Your task to perform on an android device: Search for bose soundlink mini on newegg, select the first entry, add it to the cart, then select checkout. Image 0: 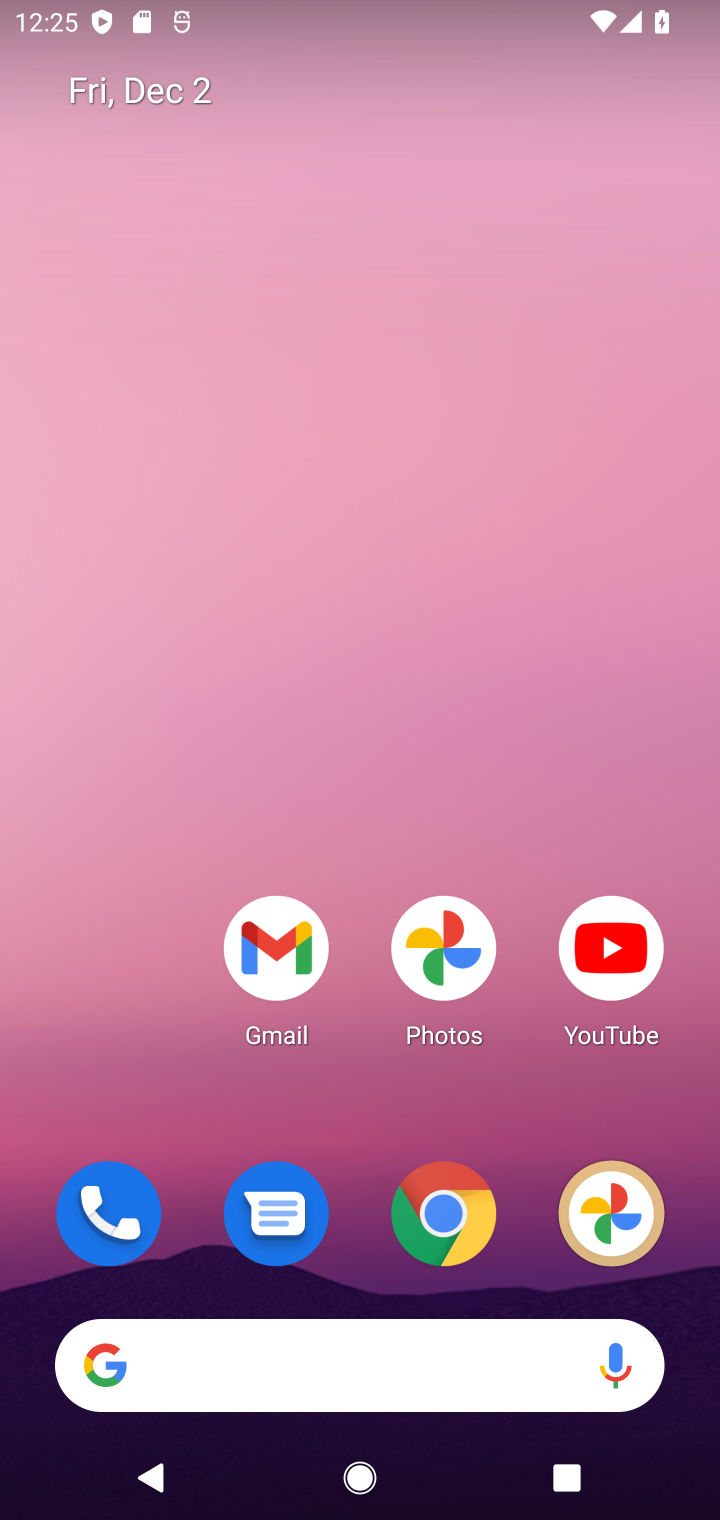
Step 0: drag from (347, 1369) to (347, 364)
Your task to perform on an android device: Search for bose soundlink mini on newegg, select the first entry, add it to the cart, then select checkout. Image 1: 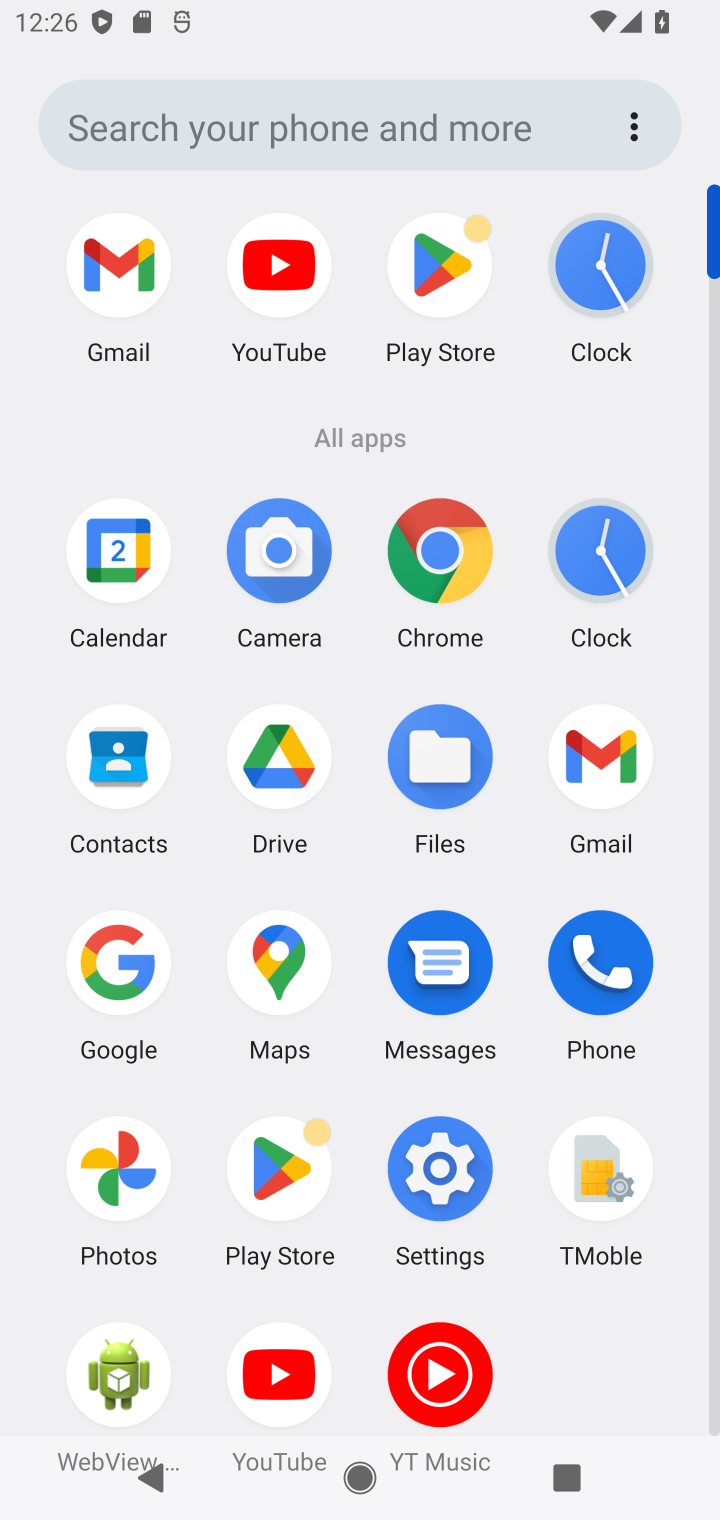
Step 1: click (114, 953)
Your task to perform on an android device: Search for bose soundlink mini on newegg, select the first entry, add it to the cart, then select checkout. Image 2: 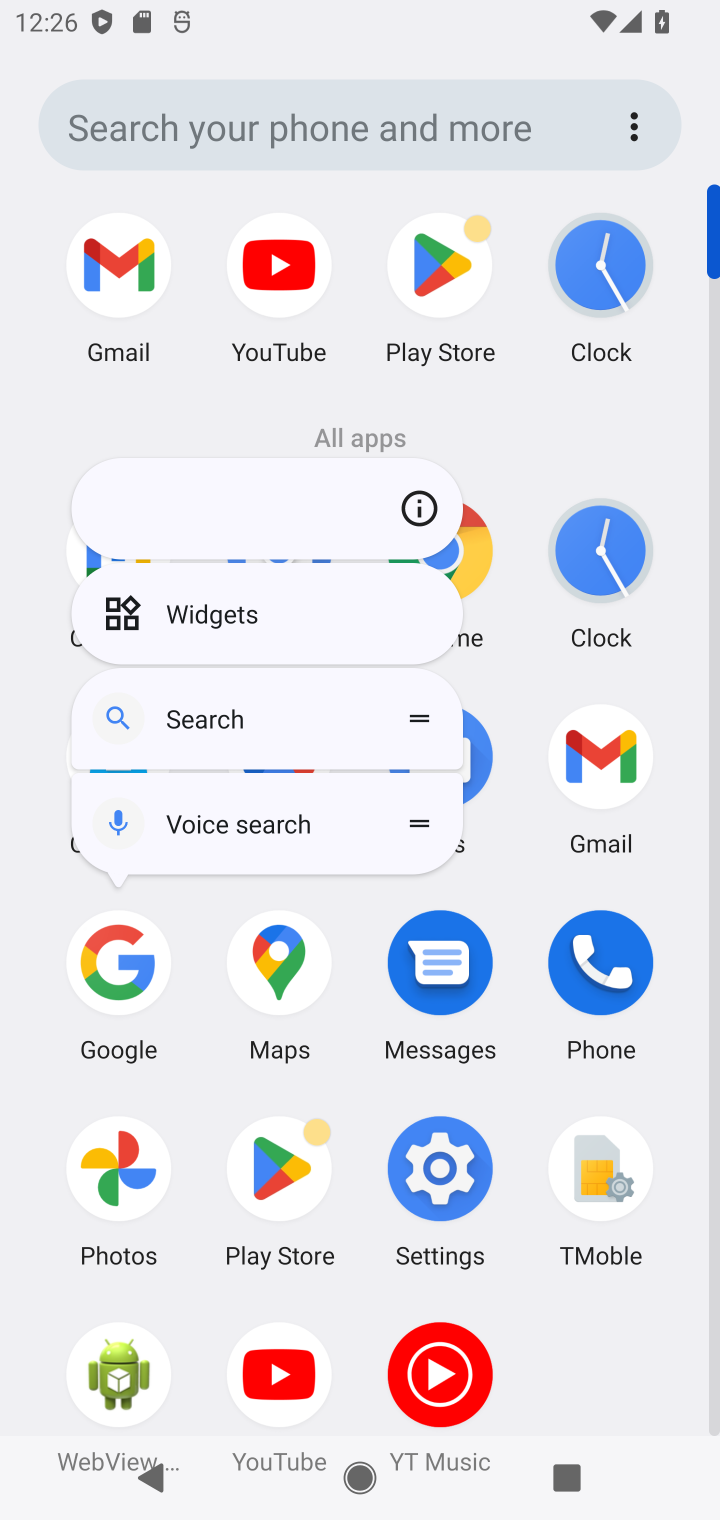
Step 2: click (116, 949)
Your task to perform on an android device: Search for bose soundlink mini on newegg, select the first entry, add it to the cart, then select checkout. Image 3: 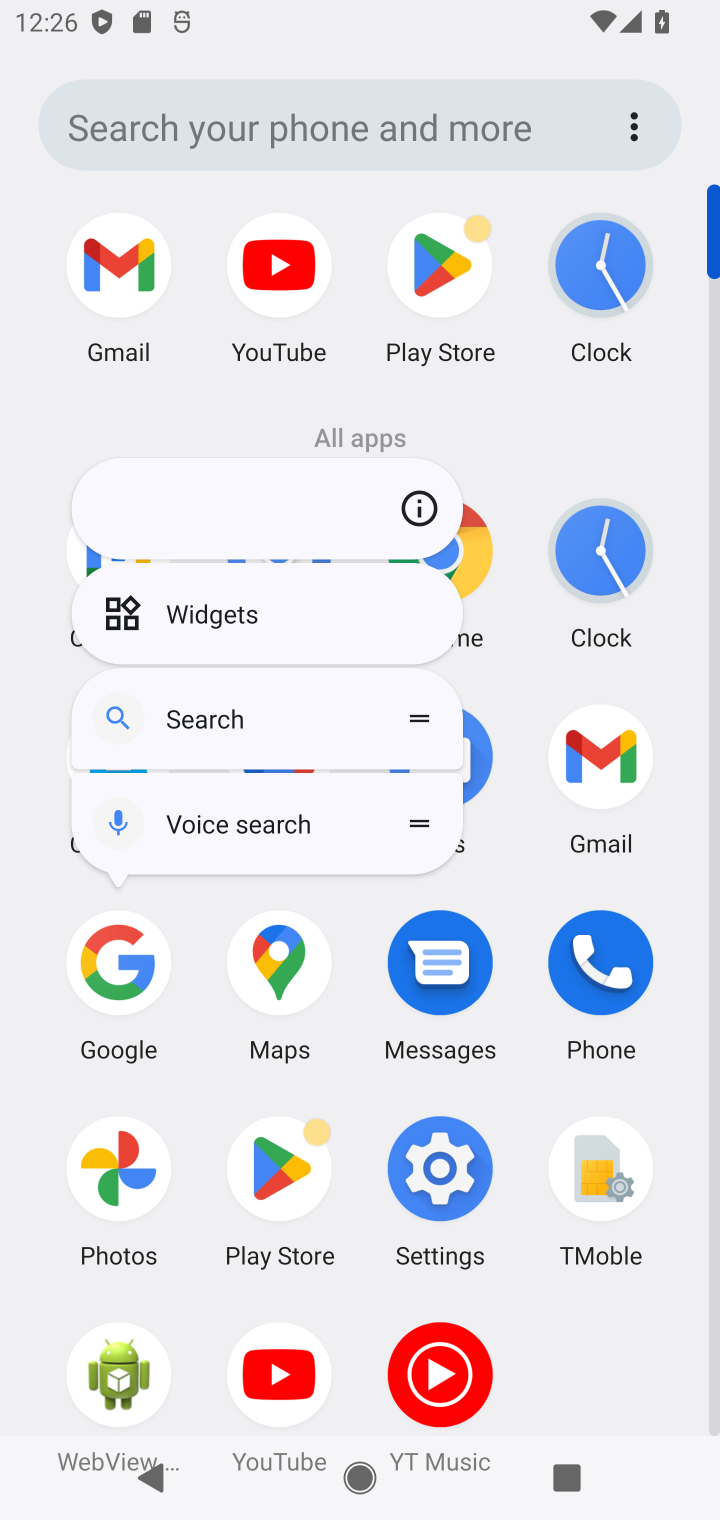
Step 3: click (95, 980)
Your task to perform on an android device: Search for bose soundlink mini on newegg, select the first entry, add it to the cart, then select checkout. Image 4: 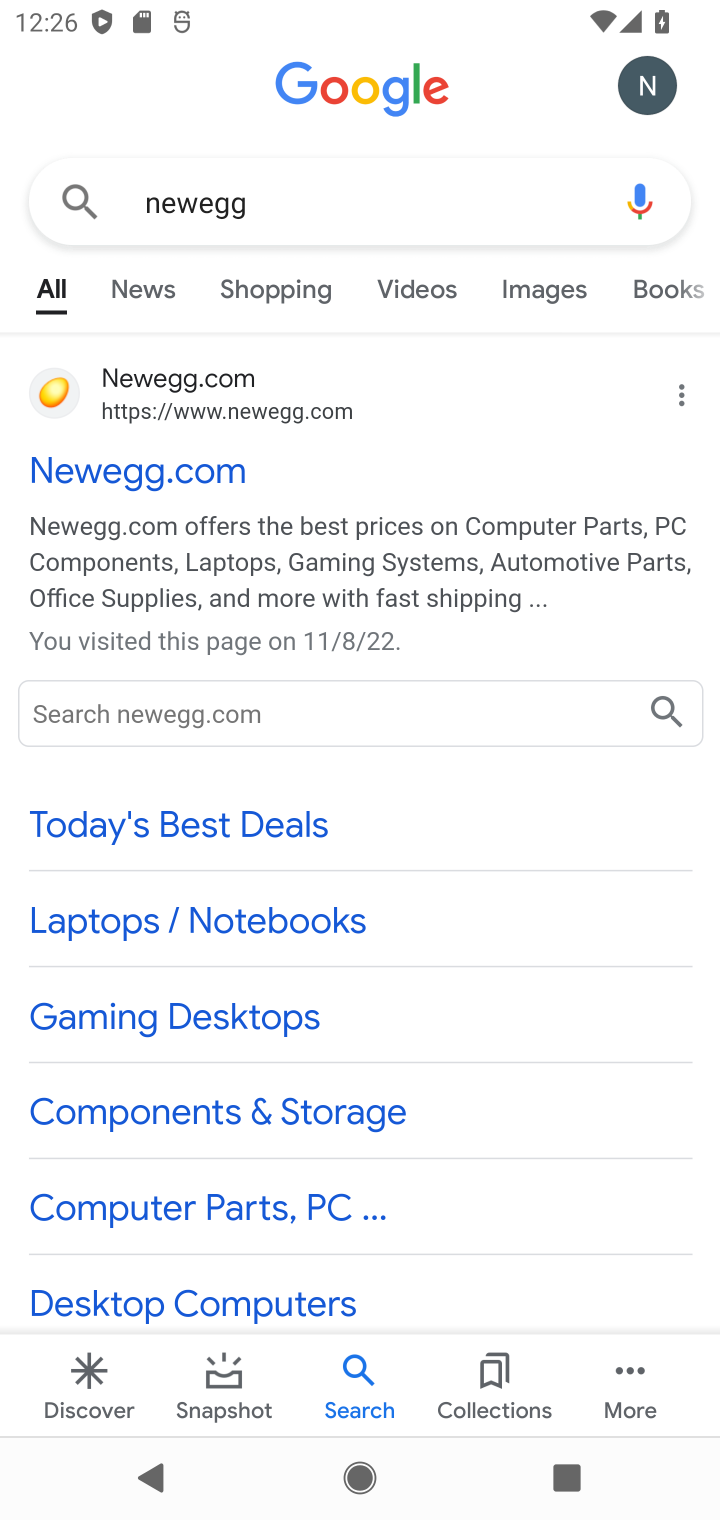
Step 4: click (232, 206)
Your task to perform on an android device: Search for bose soundlink mini on newegg, select the first entry, add it to the cart, then select checkout. Image 5: 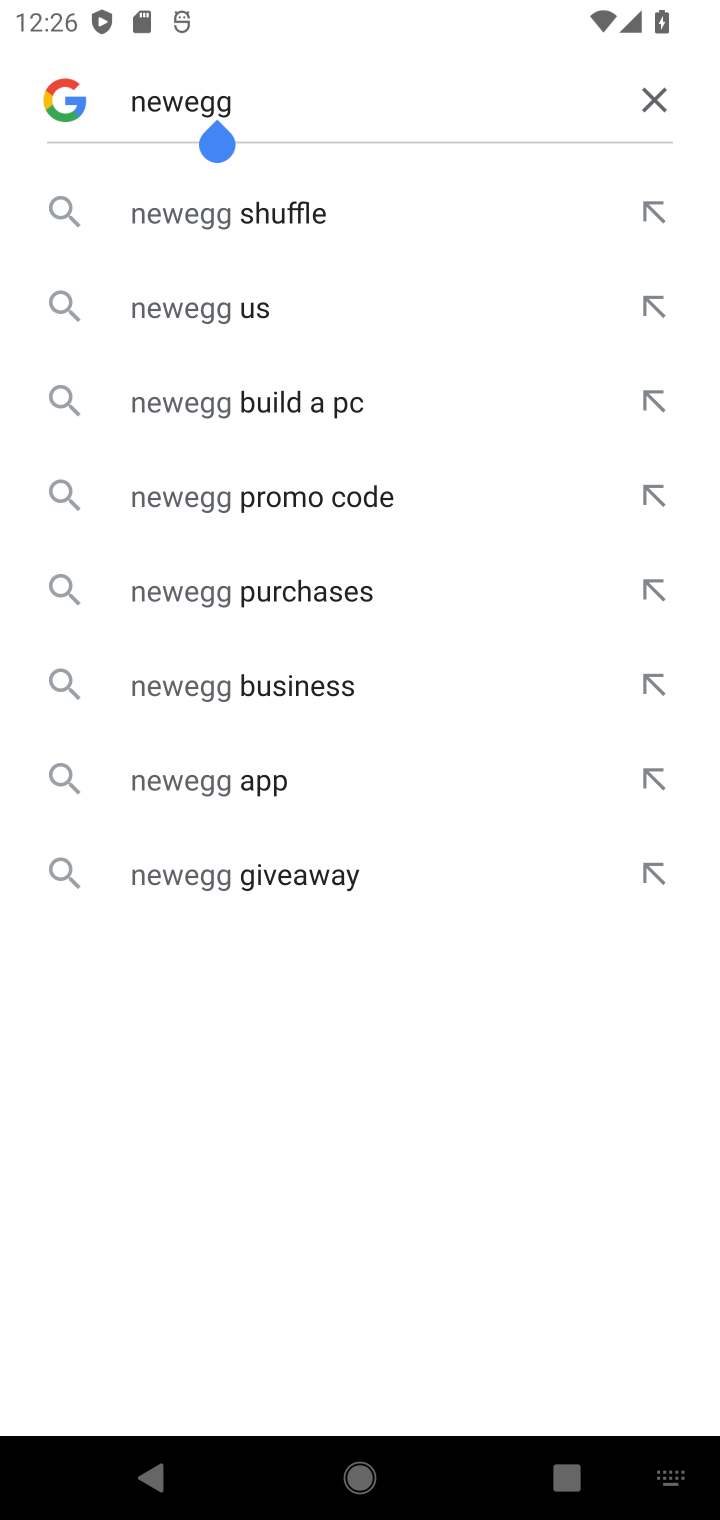
Step 5: click (664, 102)
Your task to perform on an android device: Search for bose soundlink mini on newegg, select the first entry, add it to the cart, then select checkout. Image 6: 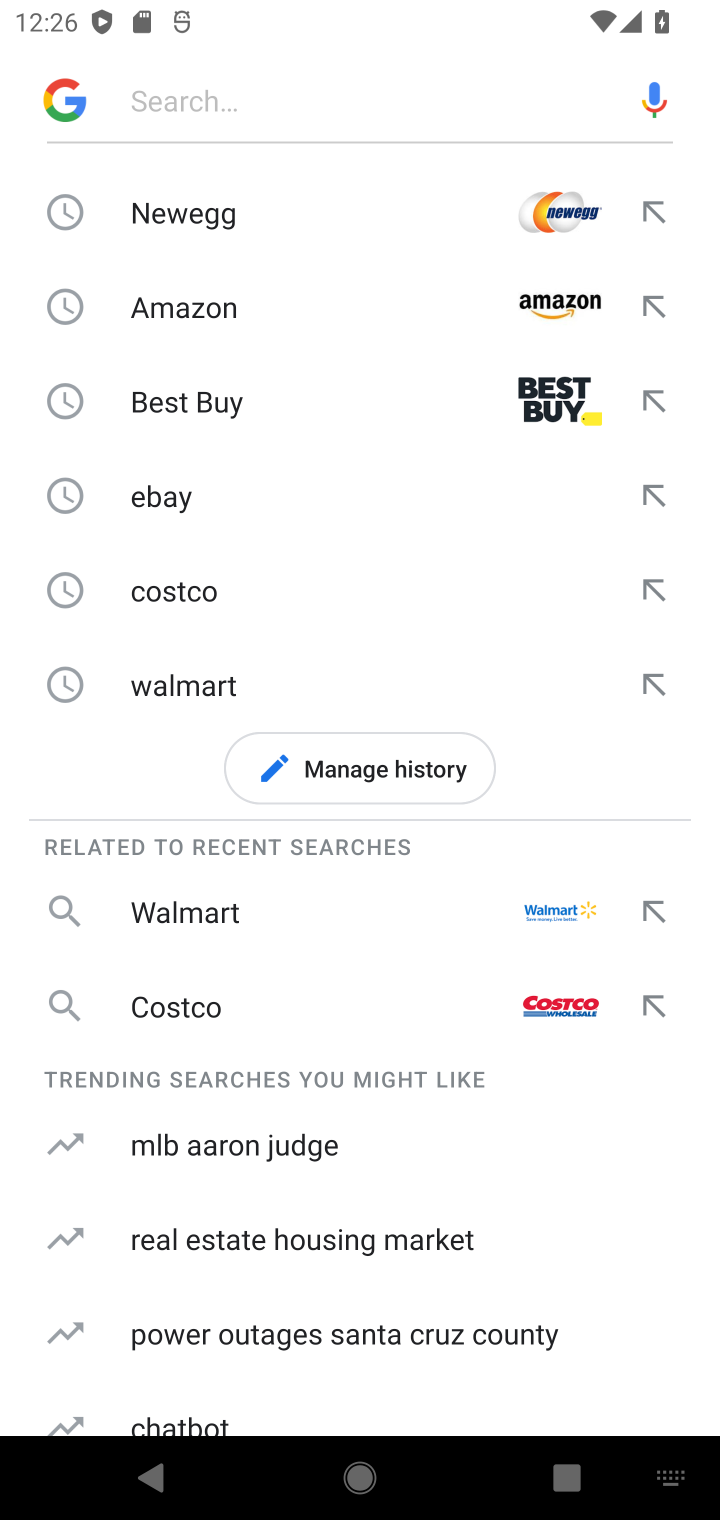
Step 6: click (190, 225)
Your task to perform on an android device: Search for bose soundlink mini on newegg, select the first entry, add it to the cart, then select checkout. Image 7: 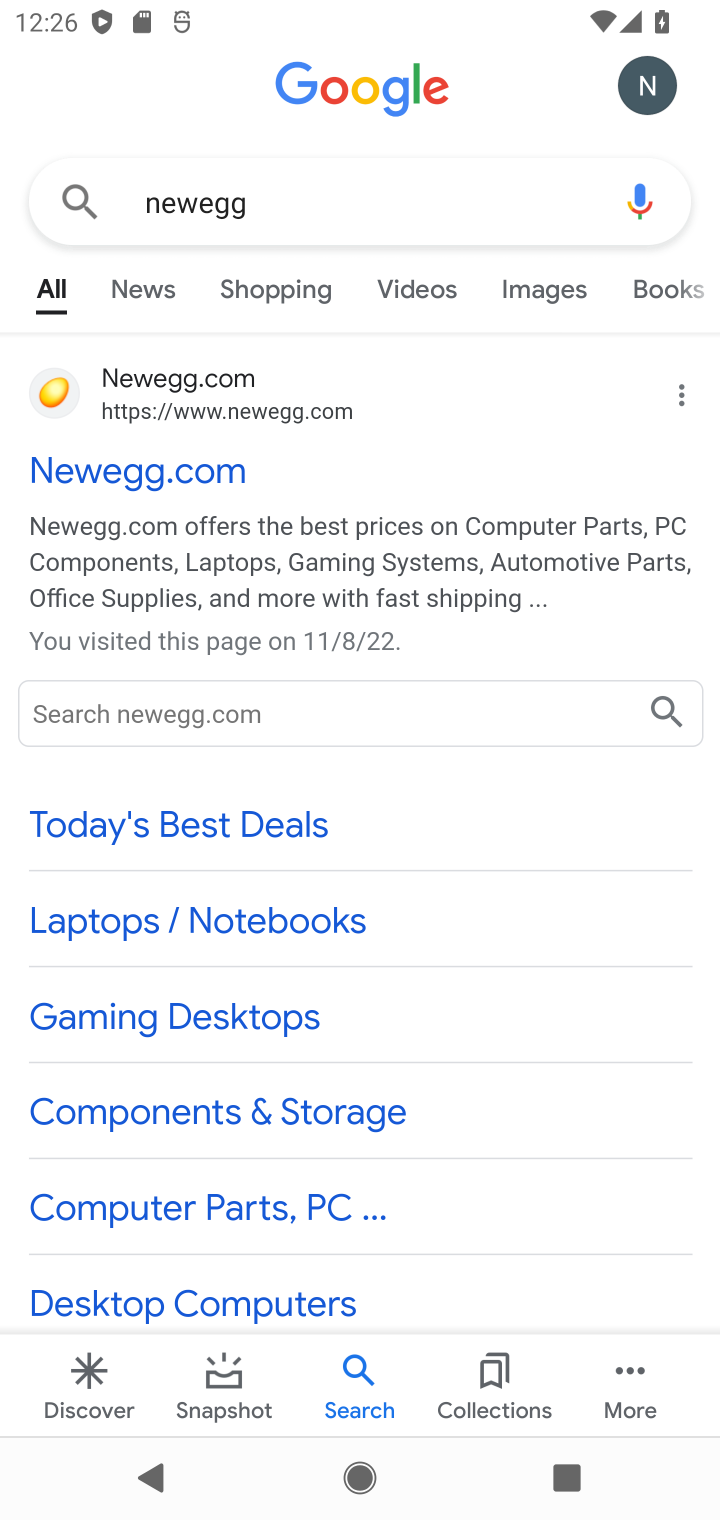
Step 7: click (91, 463)
Your task to perform on an android device: Search for bose soundlink mini on newegg, select the first entry, add it to the cart, then select checkout. Image 8: 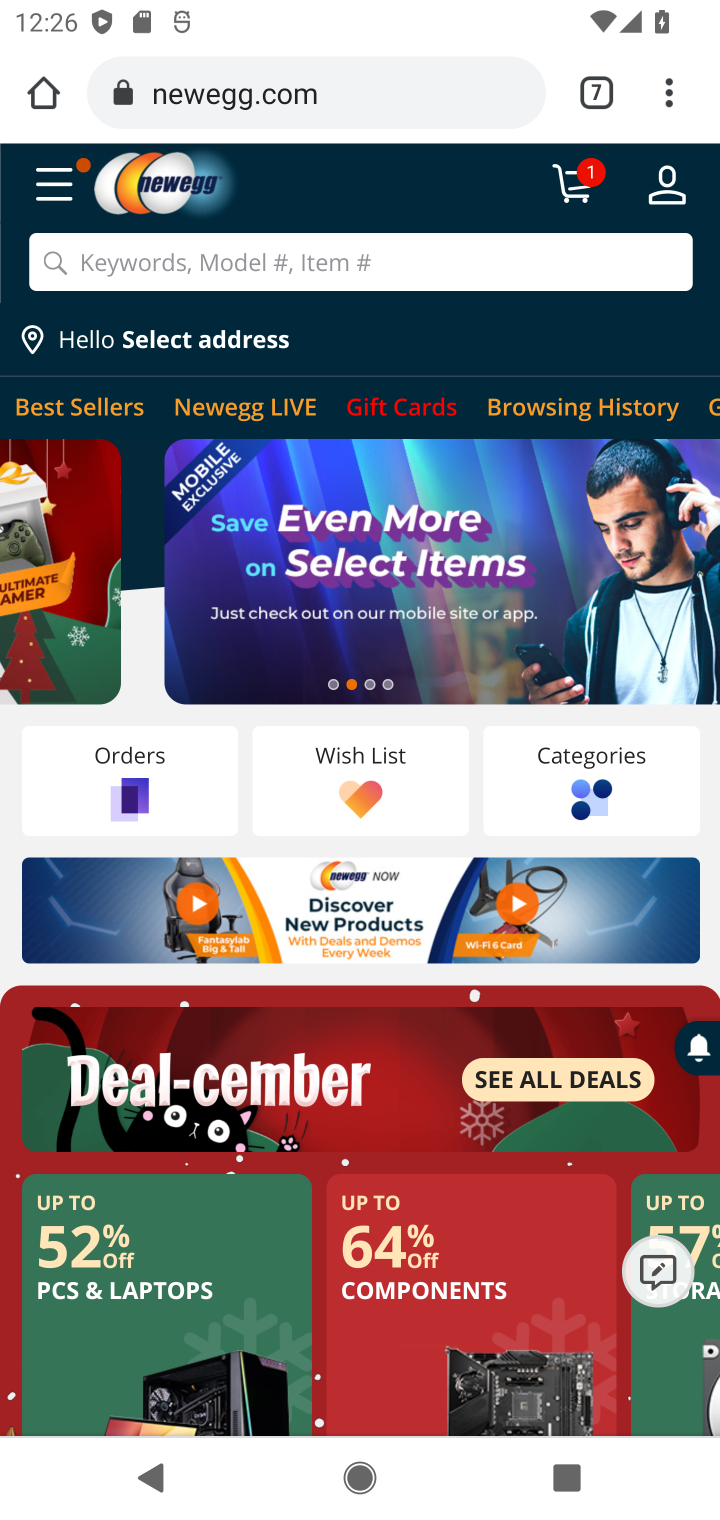
Step 8: click (241, 267)
Your task to perform on an android device: Search for bose soundlink mini on newegg, select the first entry, add it to the cart, then select checkout. Image 9: 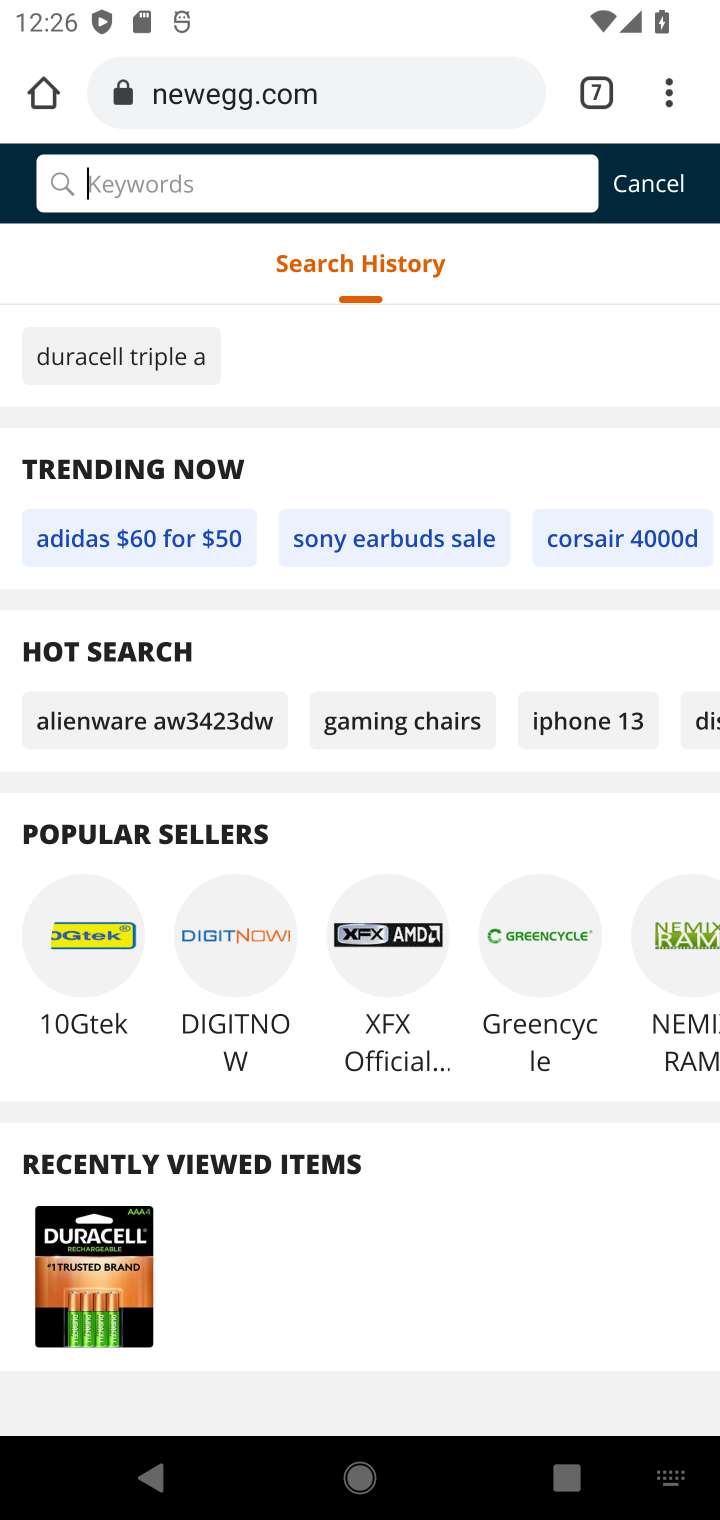
Step 9: type "bose soundlink mini "
Your task to perform on an android device: Search for bose soundlink mini on newegg, select the first entry, add it to the cart, then select checkout. Image 10: 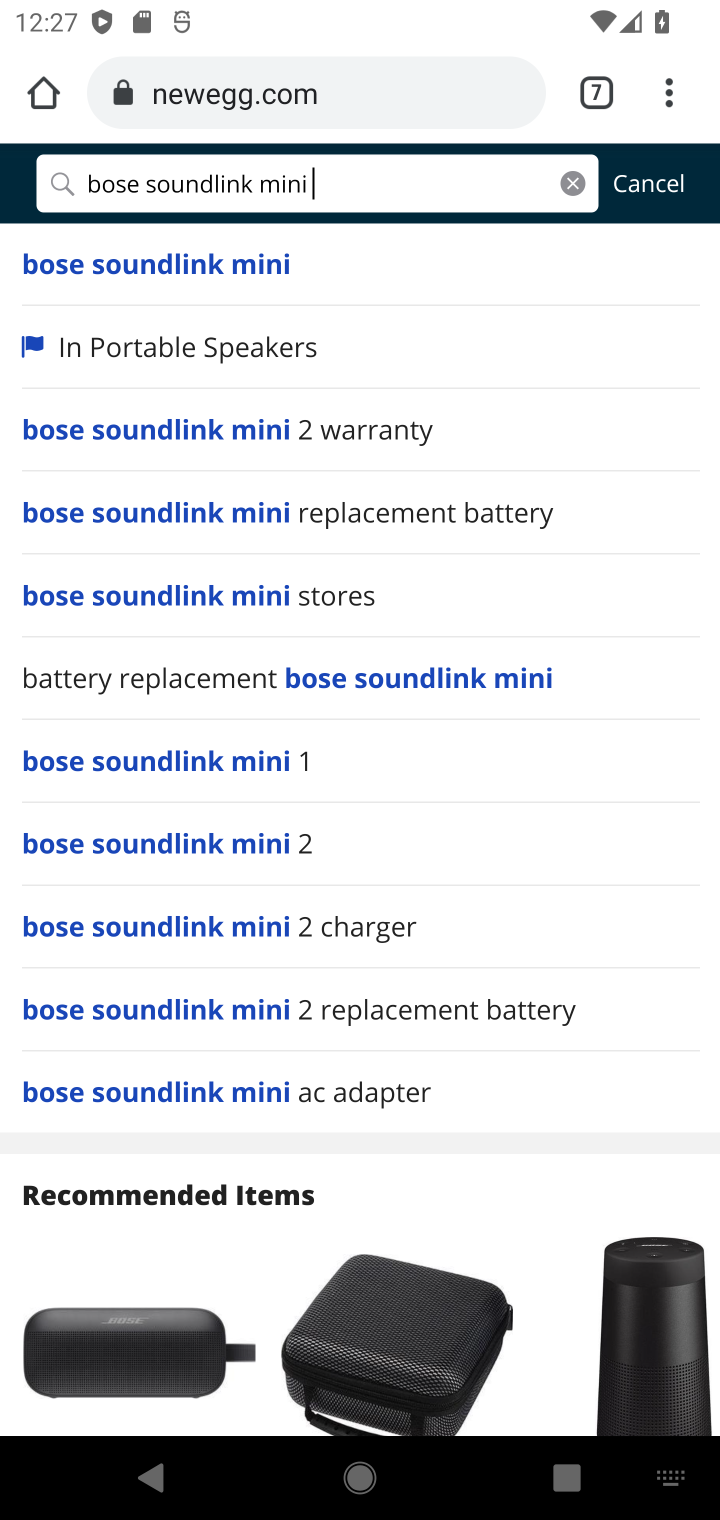
Step 10: click (123, 255)
Your task to perform on an android device: Search for bose soundlink mini on newegg, select the first entry, add it to the cart, then select checkout. Image 11: 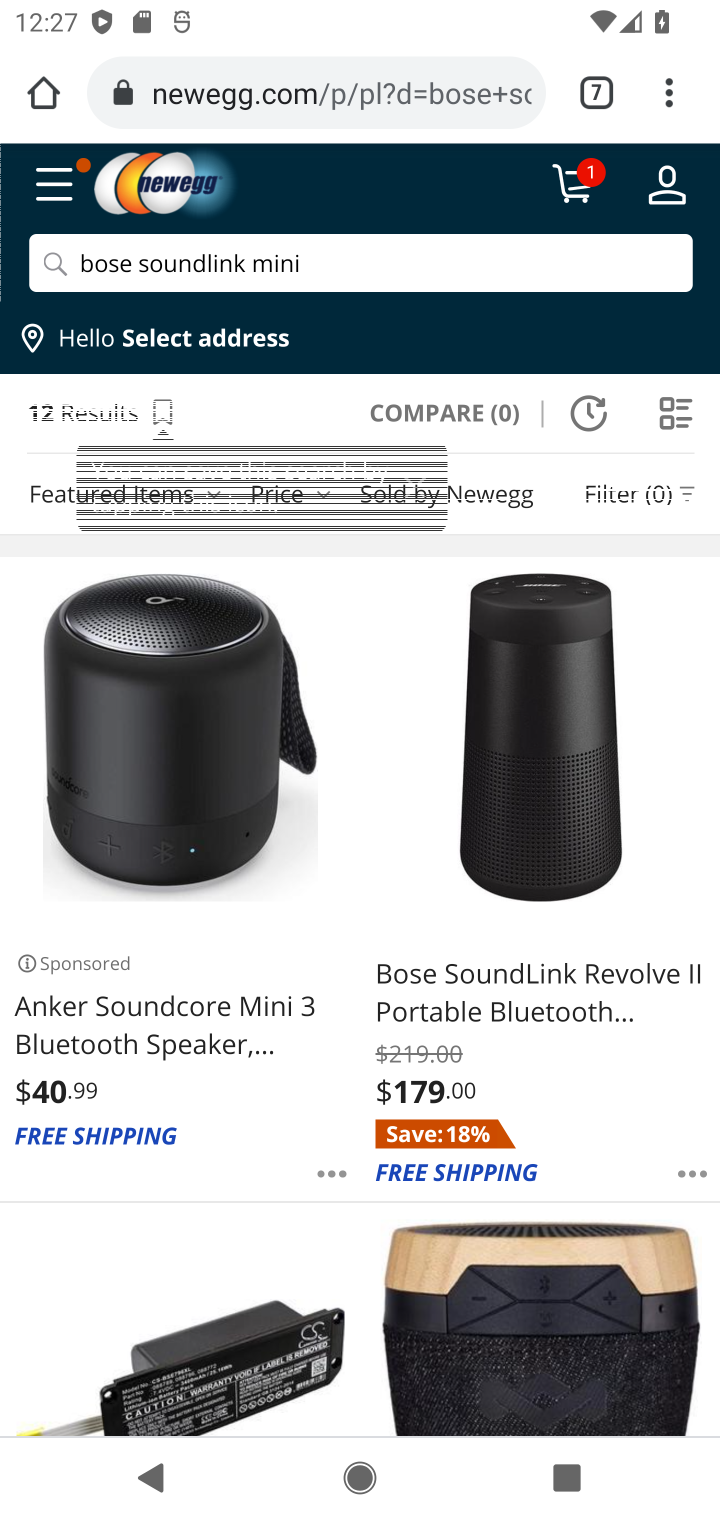
Step 11: click (130, 1038)
Your task to perform on an android device: Search for bose soundlink mini on newegg, select the first entry, add it to the cart, then select checkout. Image 12: 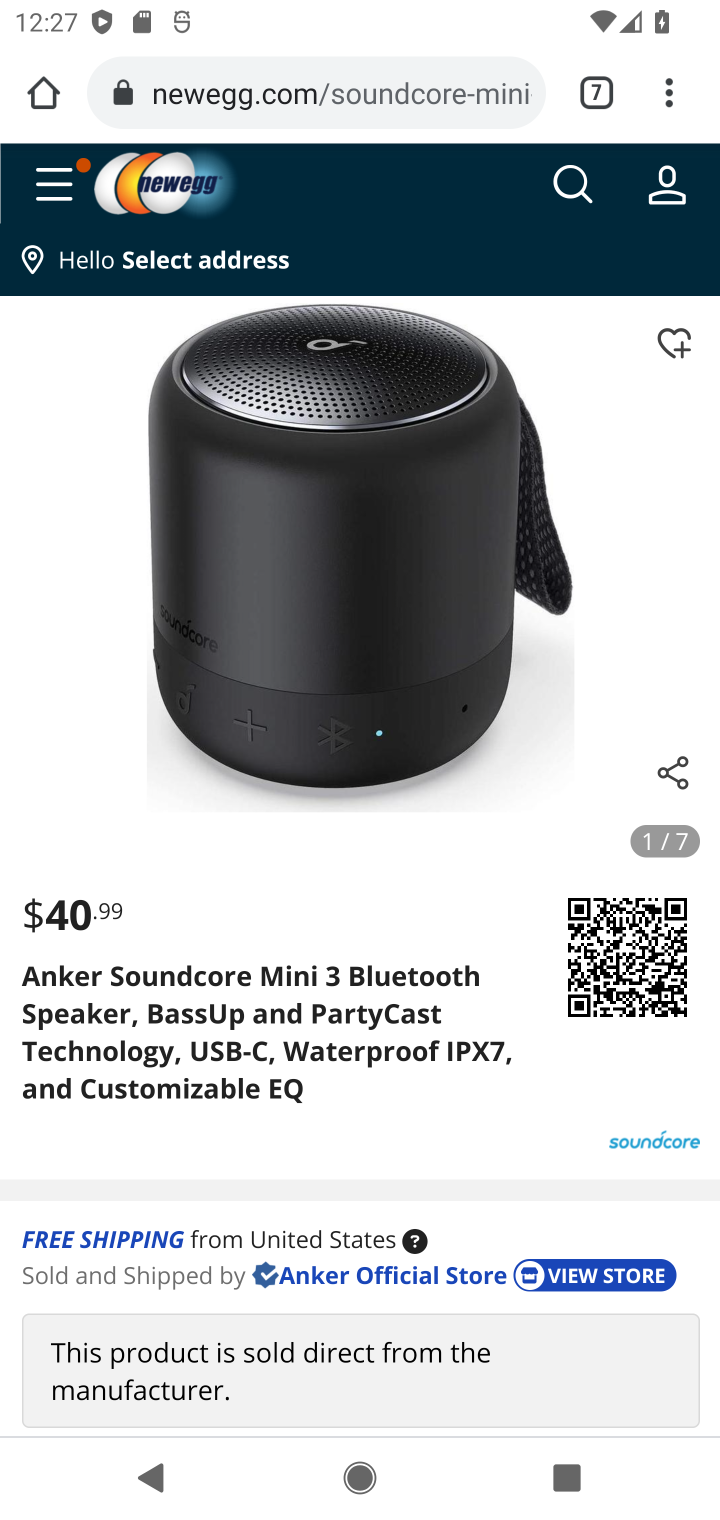
Step 12: drag from (287, 1334) to (311, 644)
Your task to perform on an android device: Search for bose soundlink mini on newegg, select the first entry, add it to the cart, then select checkout. Image 13: 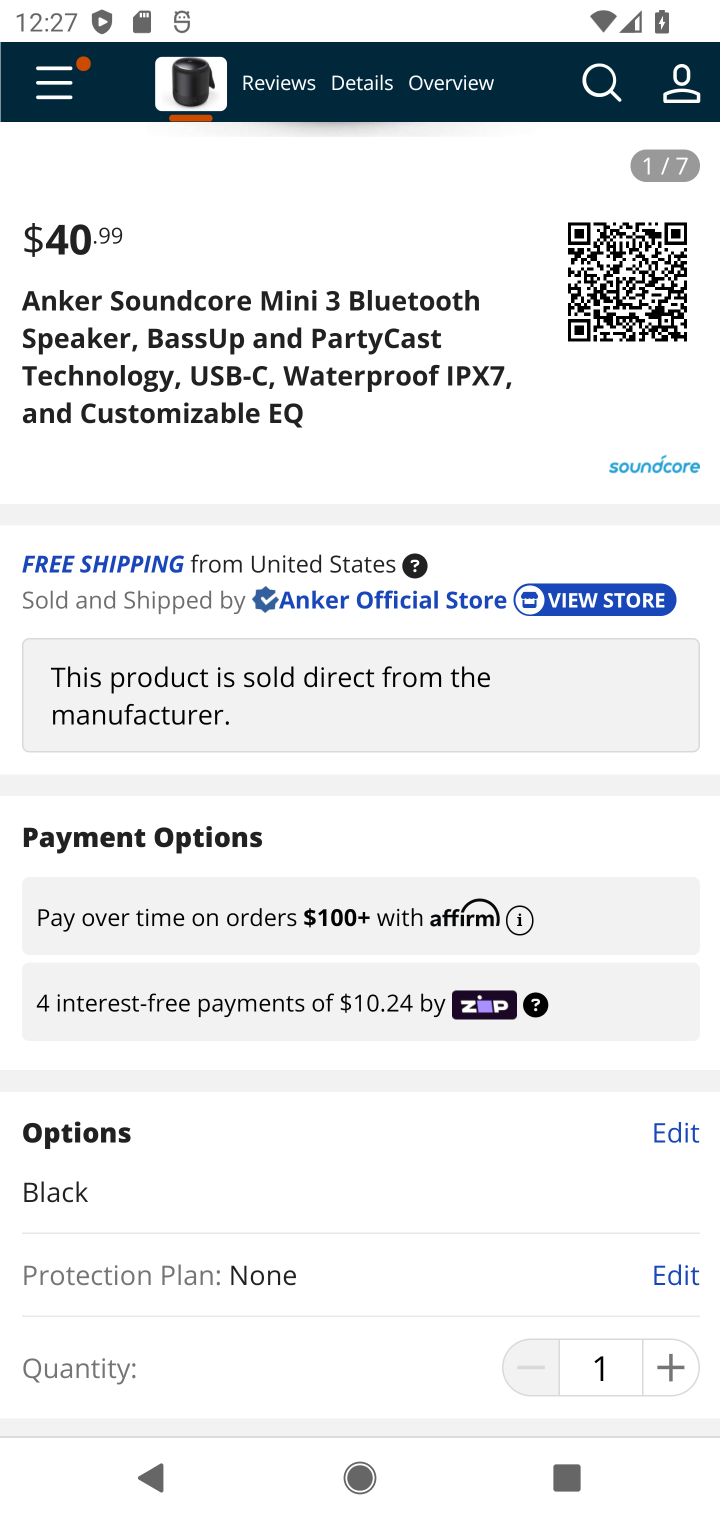
Step 13: click (302, 1395)
Your task to perform on an android device: Search for bose soundlink mini on newegg, select the first entry, add it to the cart, then select checkout. Image 14: 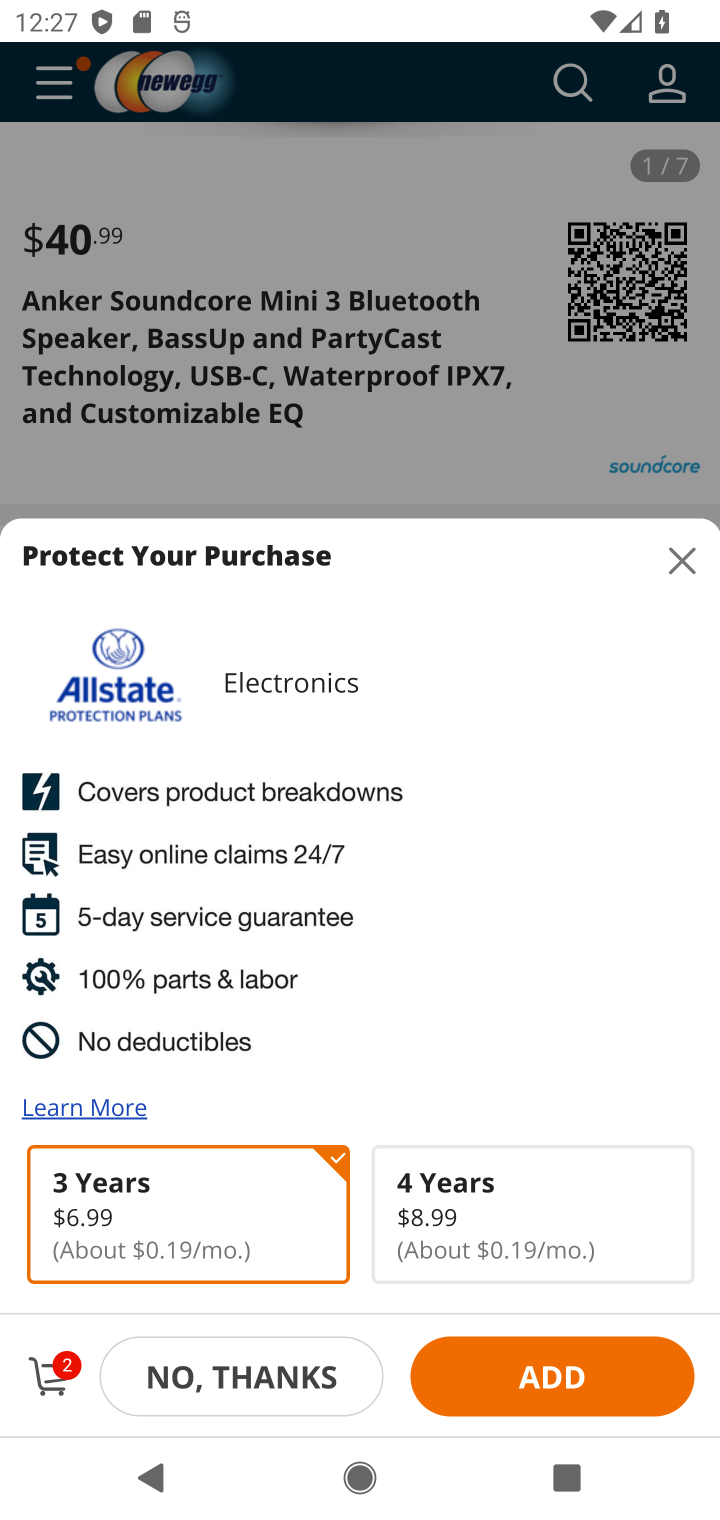
Step 14: click (680, 564)
Your task to perform on an android device: Search for bose soundlink mini on newegg, select the first entry, add it to the cart, then select checkout. Image 15: 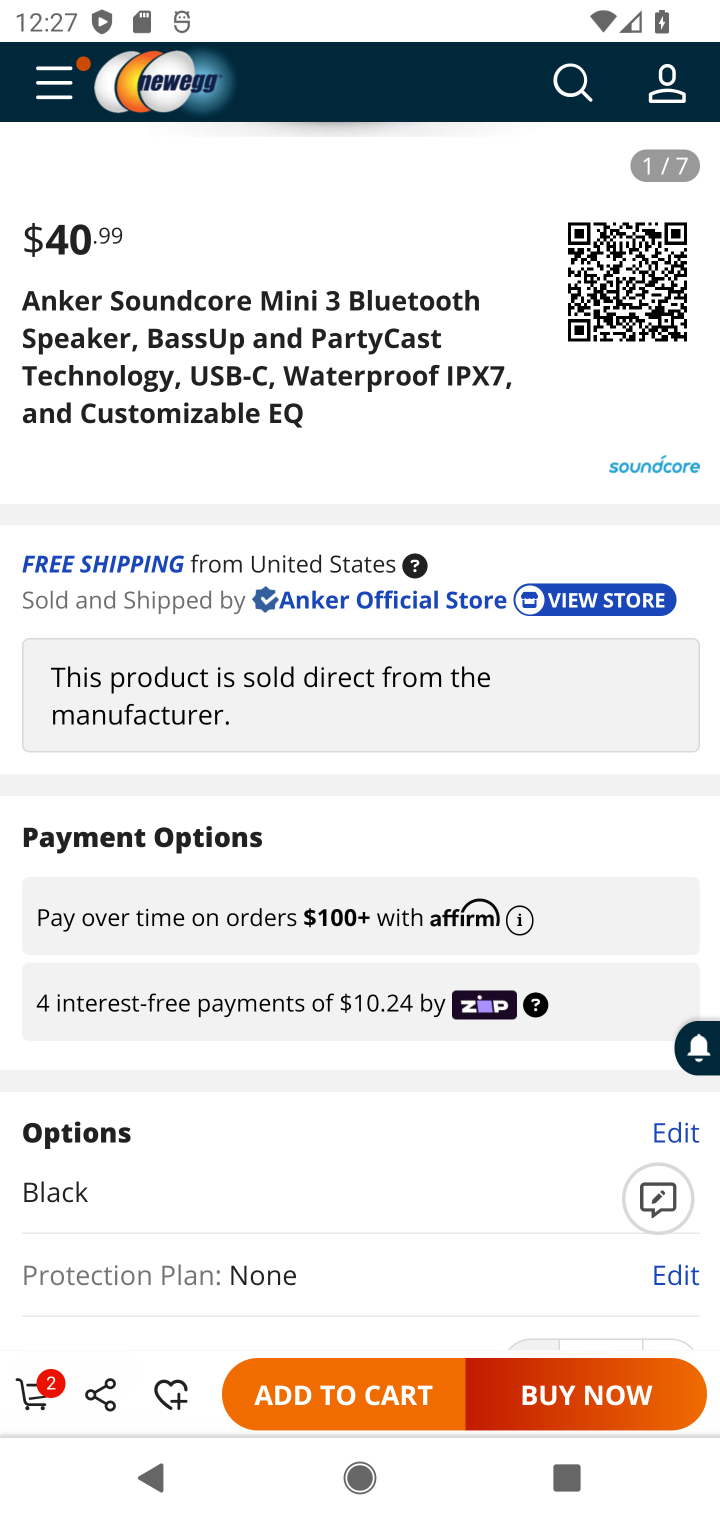
Step 15: click (37, 1397)
Your task to perform on an android device: Search for bose soundlink mini on newegg, select the first entry, add it to the cart, then select checkout. Image 16: 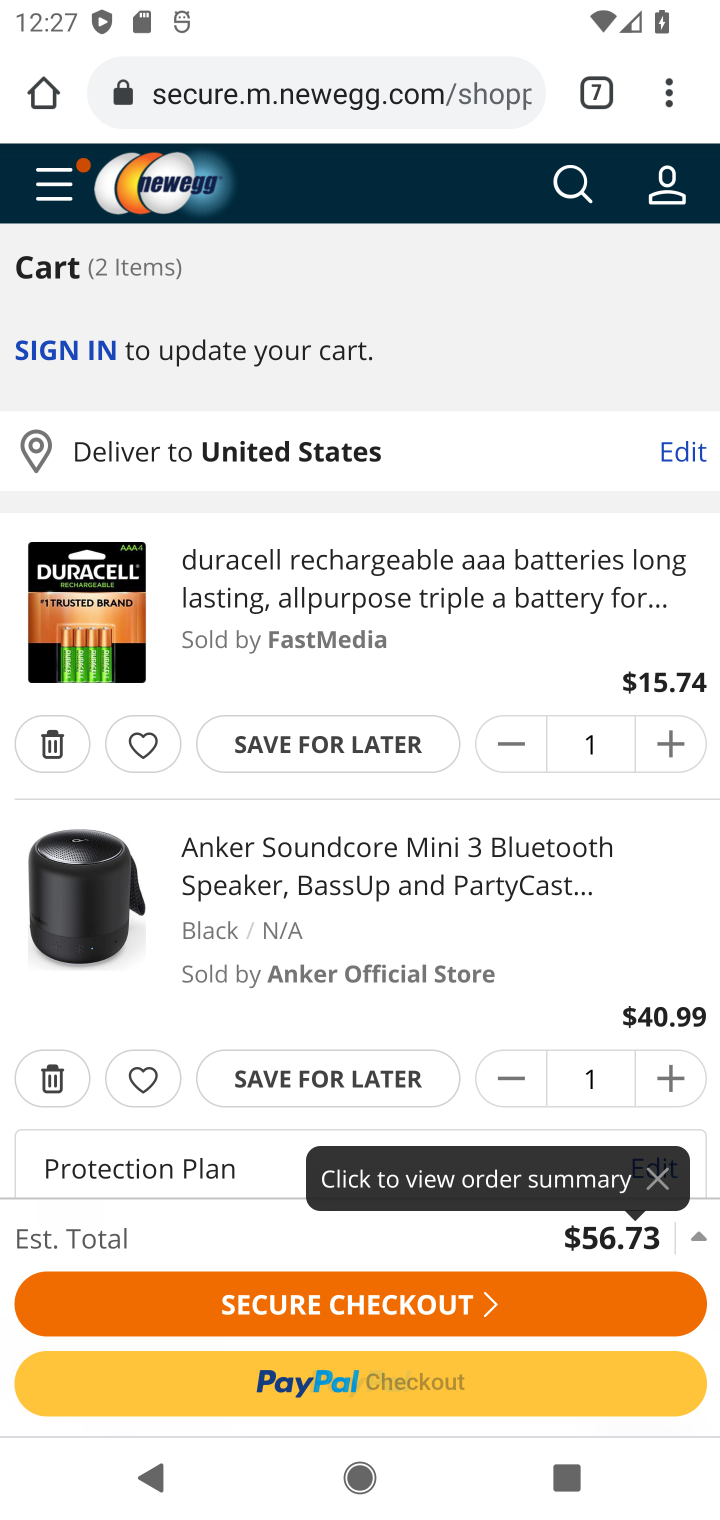
Step 16: click (231, 1306)
Your task to perform on an android device: Search for bose soundlink mini on newegg, select the first entry, add it to the cart, then select checkout. Image 17: 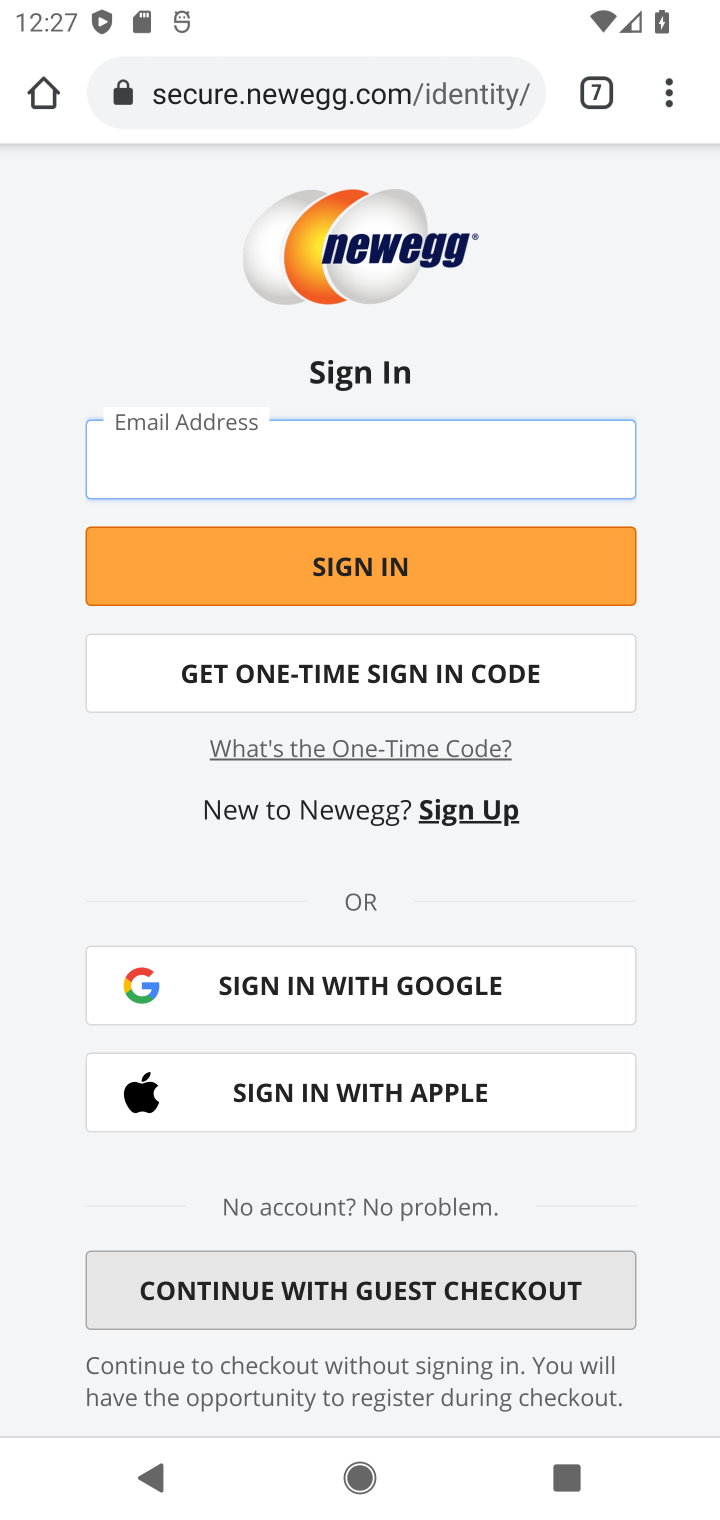
Step 17: task complete